Your task to perform on an android device: toggle improve location accuracy Image 0: 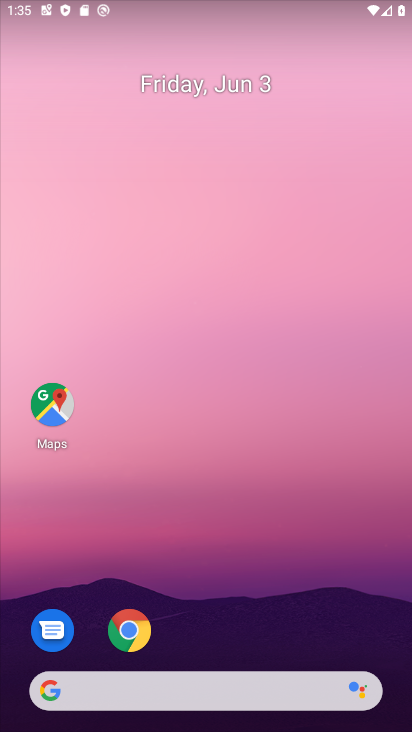
Step 0: drag from (223, 727) to (196, 164)
Your task to perform on an android device: toggle improve location accuracy Image 1: 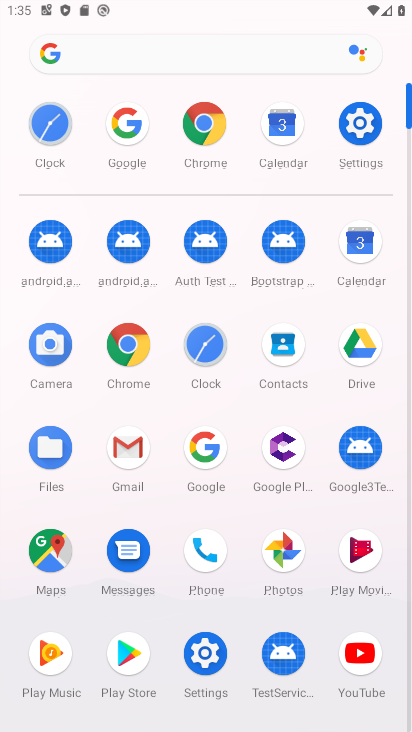
Step 1: click (352, 135)
Your task to perform on an android device: toggle improve location accuracy Image 2: 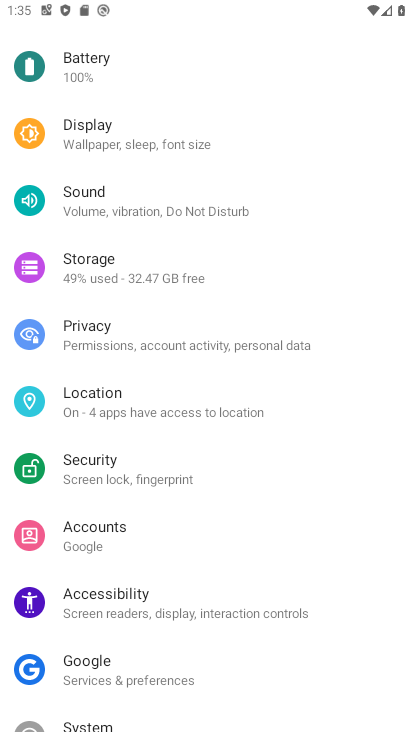
Step 2: click (90, 402)
Your task to perform on an android device: toggle improve location accuracy Image 3: 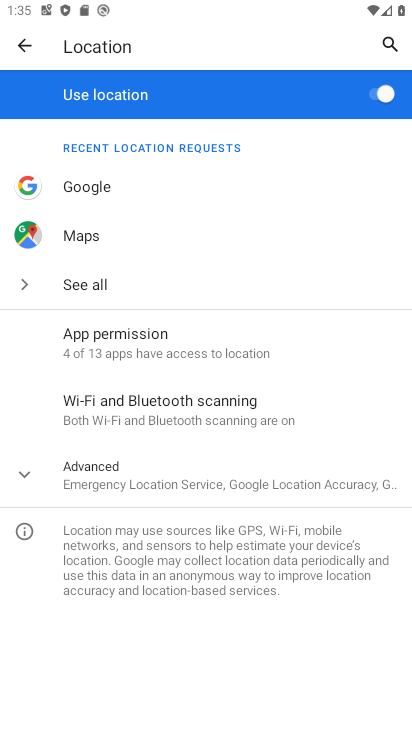
Step 3: click (91, 470)
Your task to perform on an android device: toggle improve location accuracy Image 4: 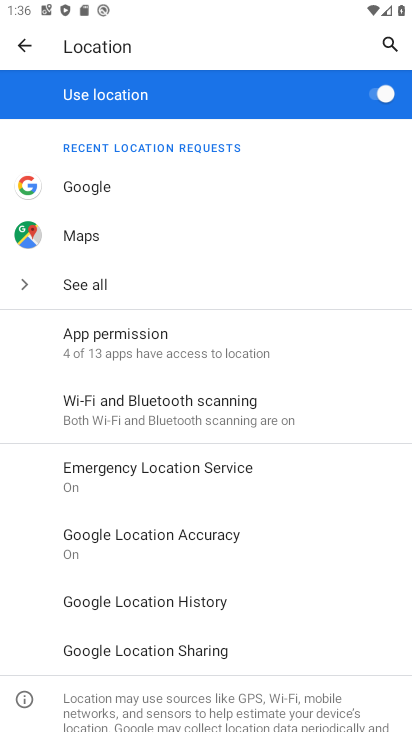
Step 4: click (153, 534)
Your task to perform on an android device: toggle improve location accuracy Image 5: 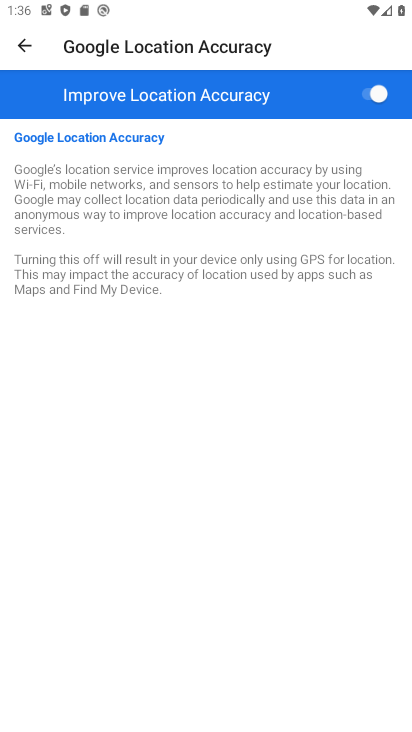
Step 5: task complete